Your task to perform on an android device: change the clock display to digital Image 0: 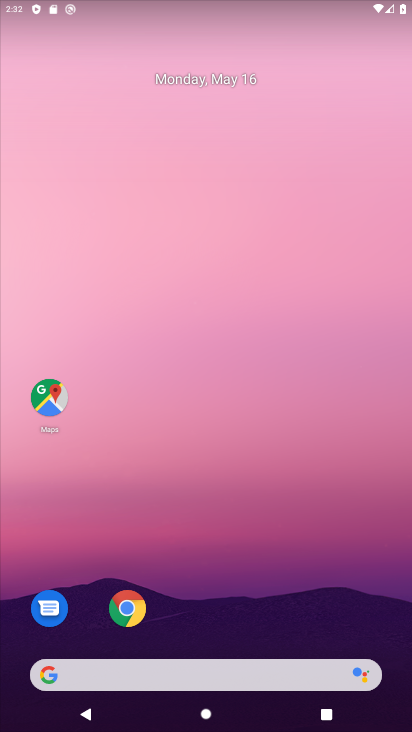
Step 0: drag from (268, 588) to (252, 53)
Your task to perform on an android device: change the clock display to digital Image 1: 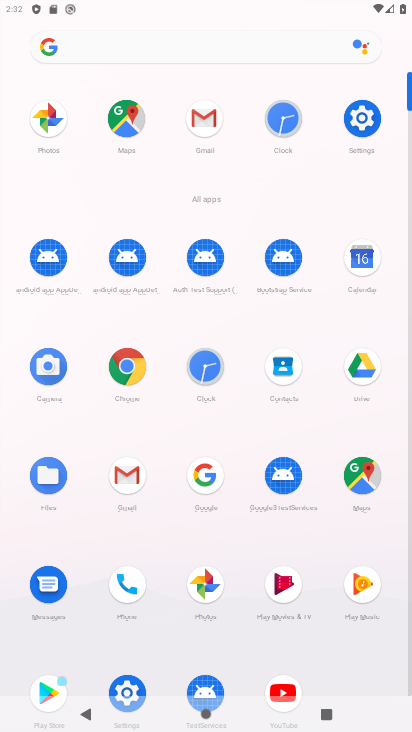
Step 1: click (283, 119)
Your task to perform on an android device: change the clock display to digital Image 2: 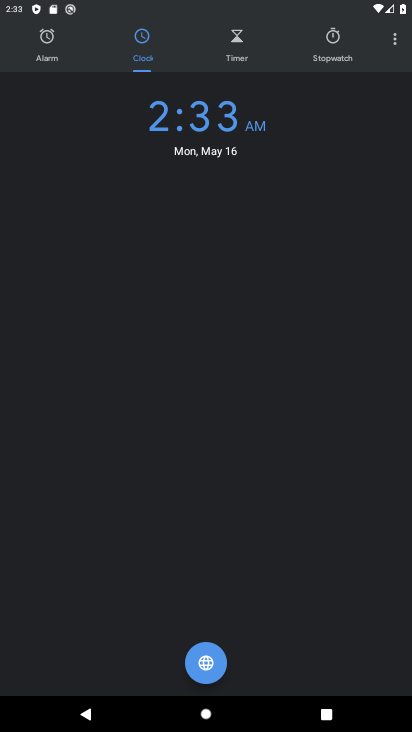
Step 2: click (397, 40)
Your task to perform on an android device: change the clock display to digital Image 3: 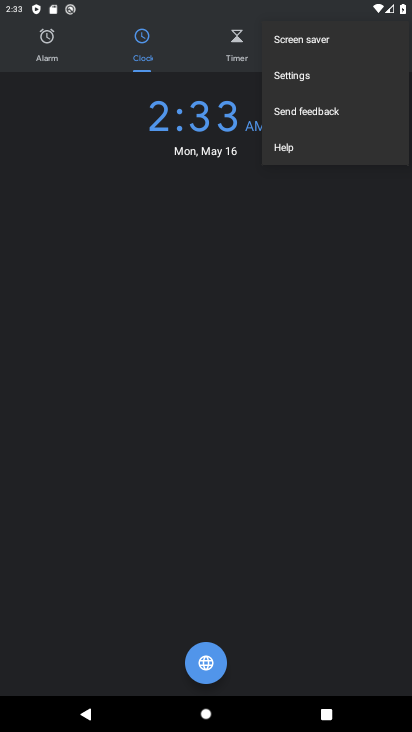
Step 3: click (289, 79)
Your task to perform on an android device: change the clock display to digital Image 4: 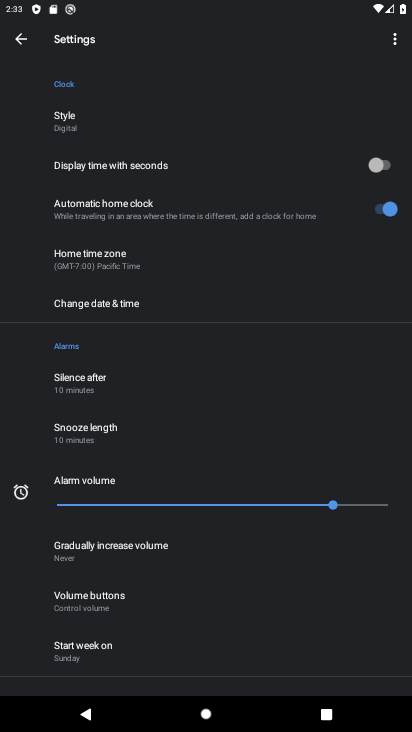
Step 4: click (104, 126)
Your task to perform on an android device: change the clock display to digital Image 5: 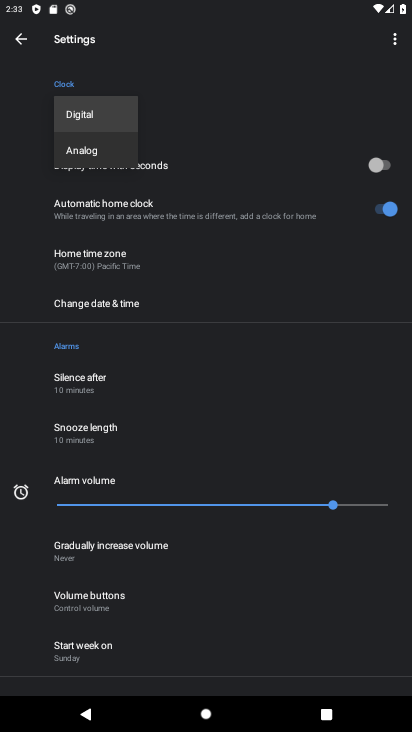
Step 5: click (102, 120)
Your task to perform on an android device: change the clock display to digital Image 6: 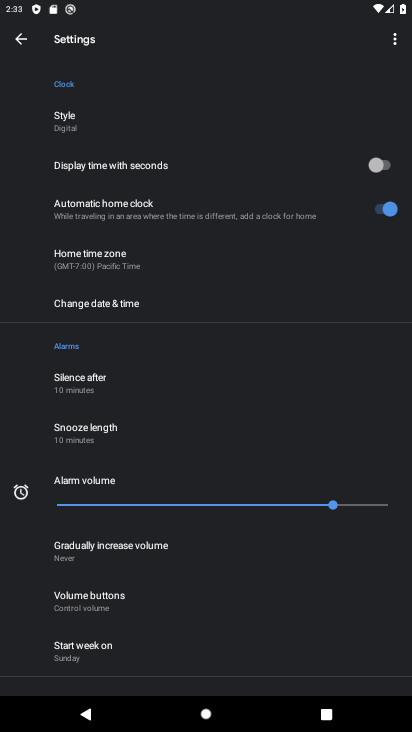
Step 6: task complete